Your task to perform on an android device: Go to network settings Image 0: 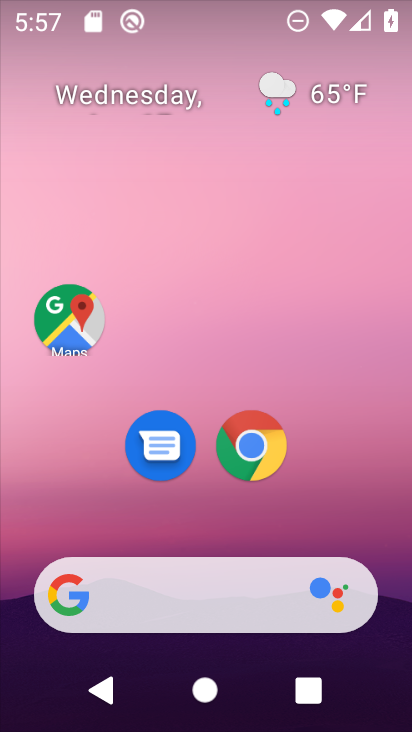
Step 0: drag from (212, 518) to (204, 152)
Your task to perform on an android device: Go to network settings Image 1: 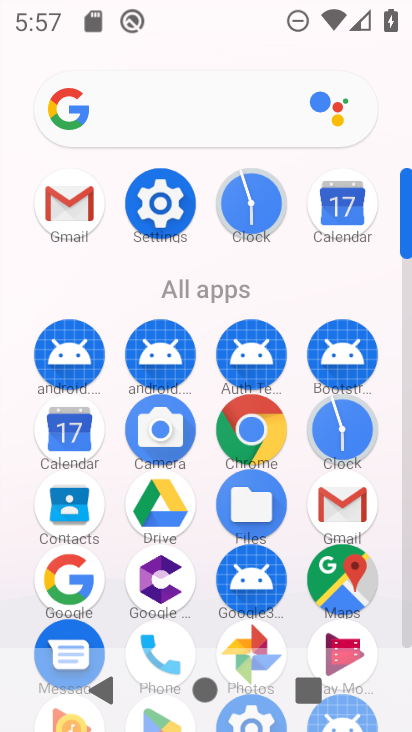
Step 1: click (169, 209)
Your task to perform on an android device: Go to network settings Image 2: 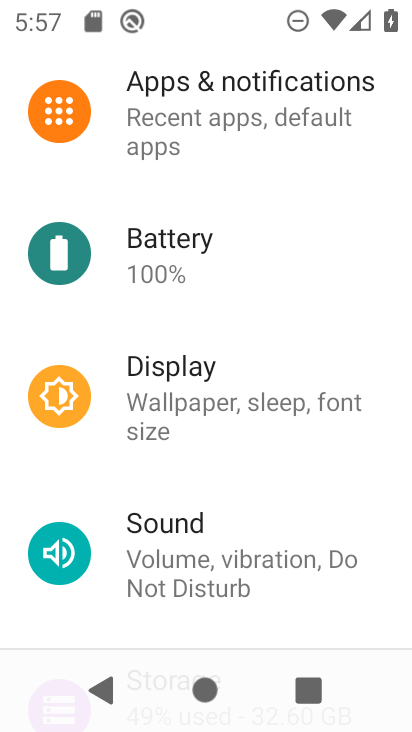
Step 2: drag from (201, 195) to (288, 639)
Your task to perform on an android device: Go to network settings Image 3: 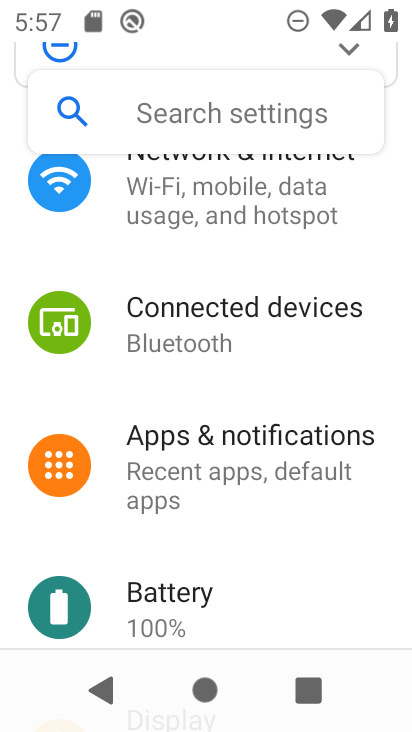
Step 3: click (216, 197)
Your task to perform on an android device: Go to network settings Image 4: 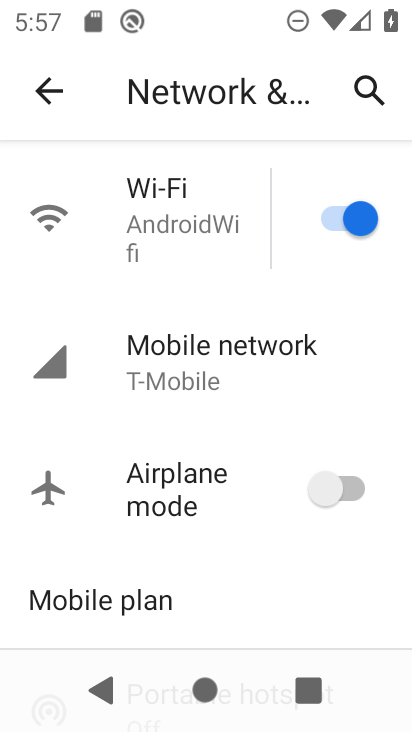
Step 4: task complete